Your task to perform on an android device: Open Amazon Image 0: 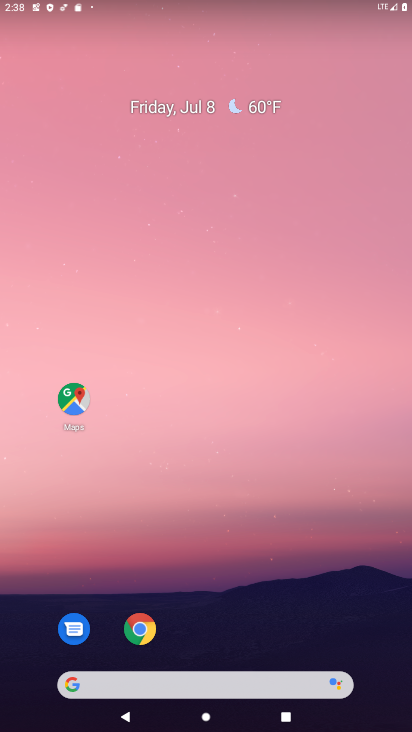
Step 0: click (145, 625)
Your task to perform on an android device: Open Amazon Image 1: 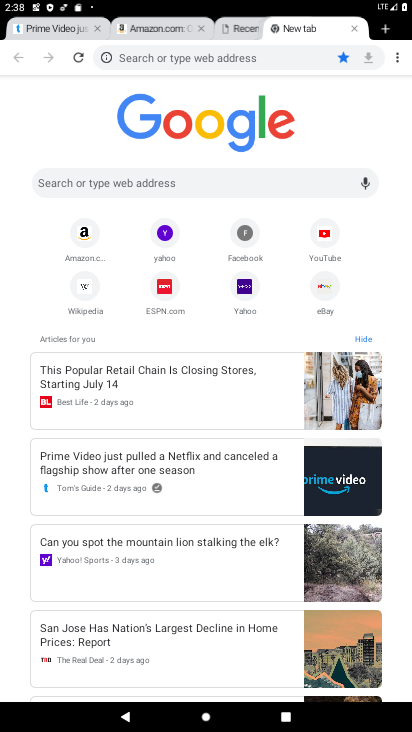
Step 1: click (81, 243)
Your task to perform on an android device: Open Amazon Image 2: 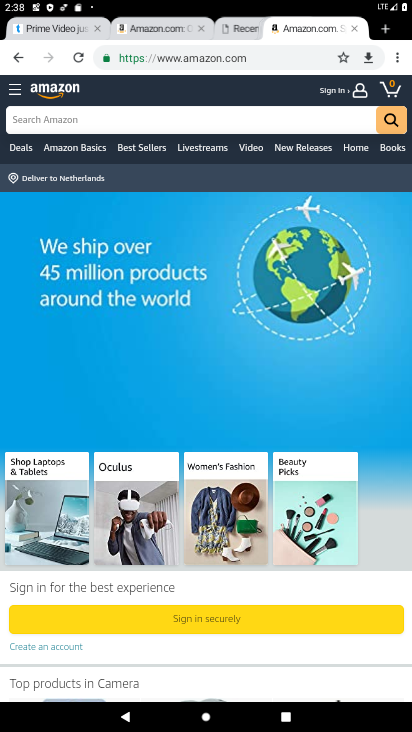
Step 2: task complete